Your task to perform on an android device: check android version Image 0: 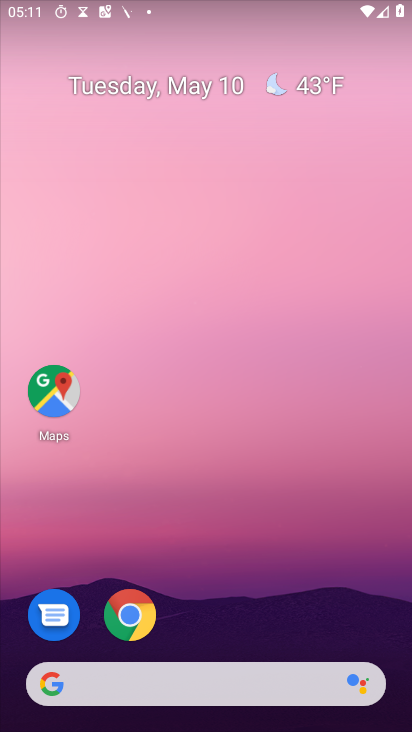
Step 0: drag from (247, 626) to (228, 61)
Your task to perform on an android device: check android version Image 1: 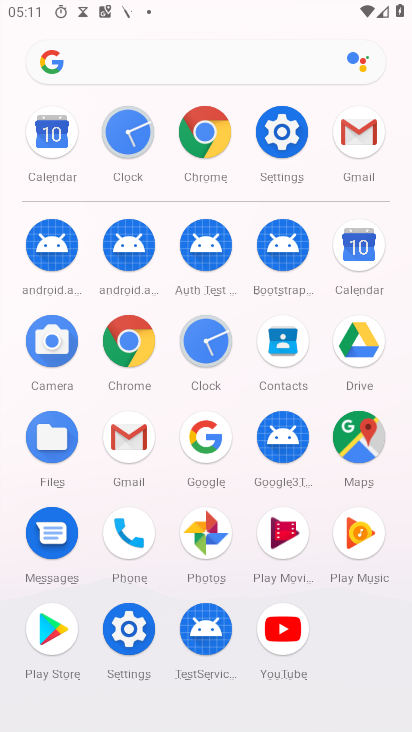
Step 1: click (287, 133)
Your task to perform on an android device: check android version Image 2: 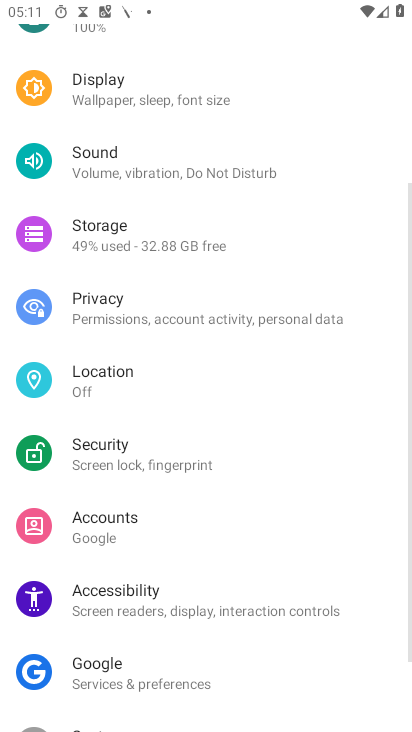
Step 2: drag from (266, 699) to (280, 106)
Your task to perform on an android device: check android version Image 3: 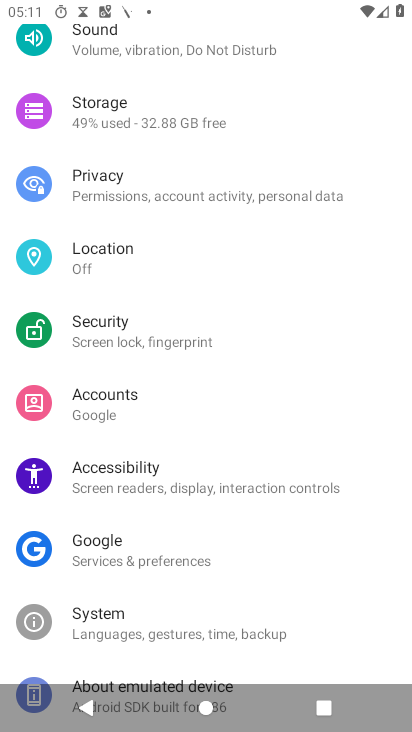
Step 3: click (183, 683)
Your task to perform on an android device: check android version Image 4: 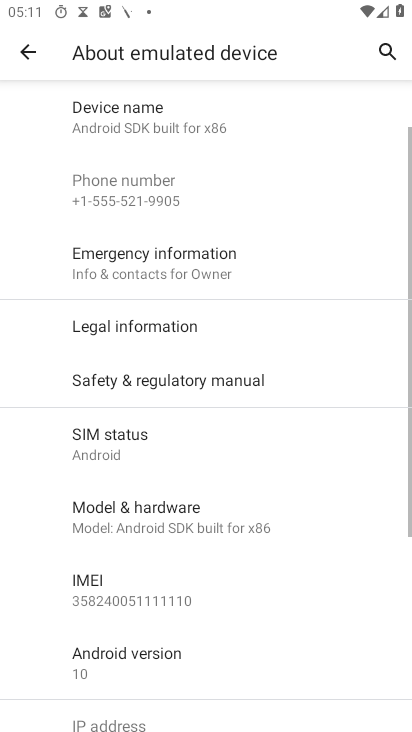
Step 4: drag from (183, 670) to (232, 287)
Your task to perform on an android device: check android version Image 5: 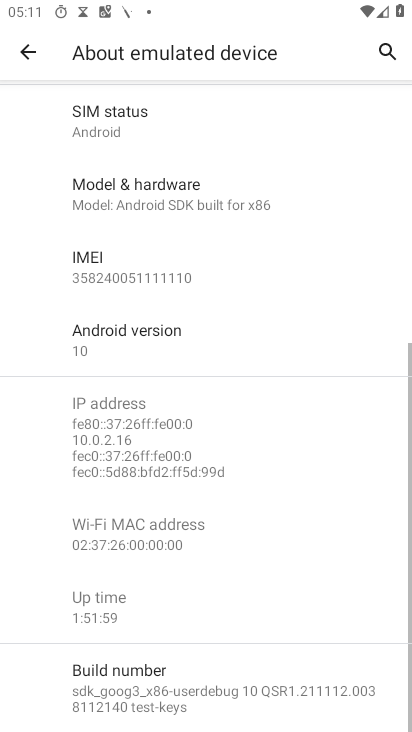
Step 5: click (151, 349)
Your task to perform on an android device: check android version Image 6: 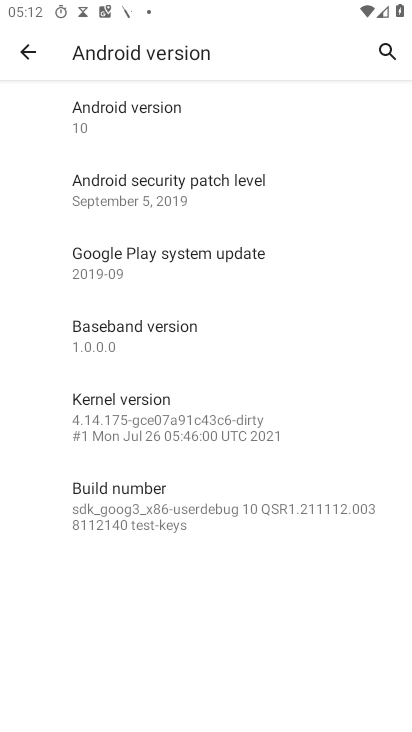
Step 6: task complete